Your task to perform on an android device: Open Maps and search for coffee Image 0: 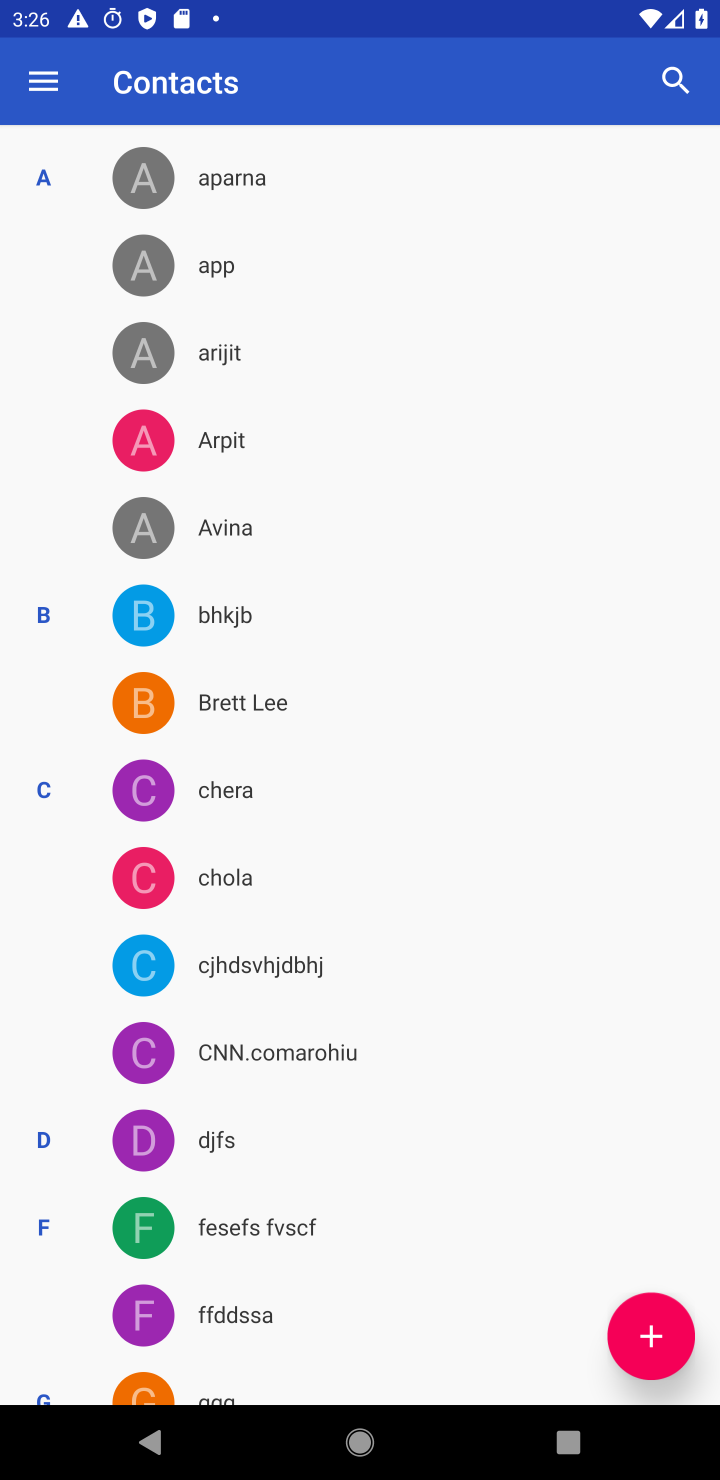
Step 0: press home button
Your task to perform on an android device: Open Maps and search for coffee Image 1: 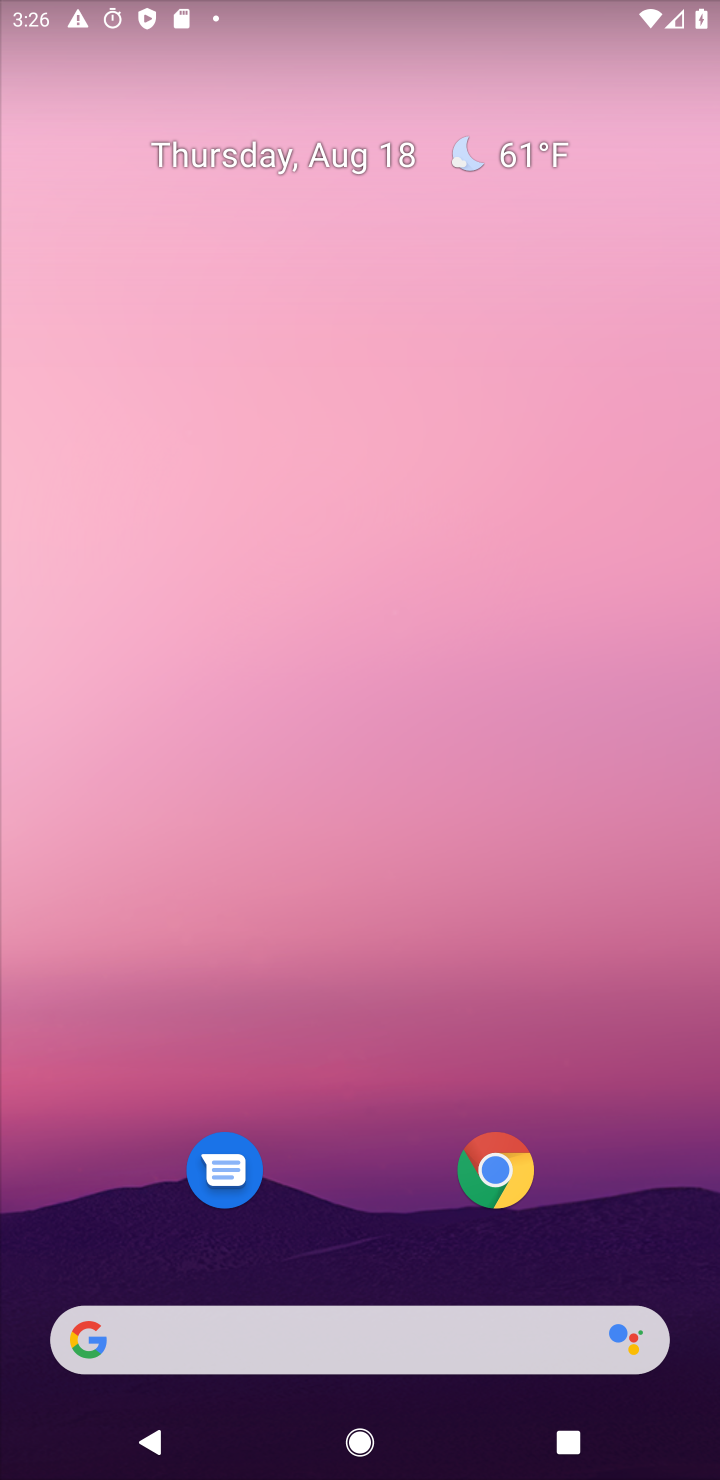
Step 1: task complete